Your task to perform on an android device: clear history in the chrome app Image 0: 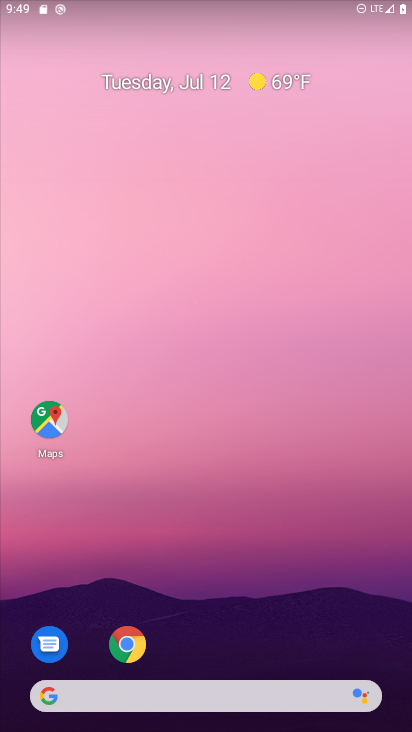
Step 0: press home button
Your task to perform on an android device: clear history in the chrome app Image 1: 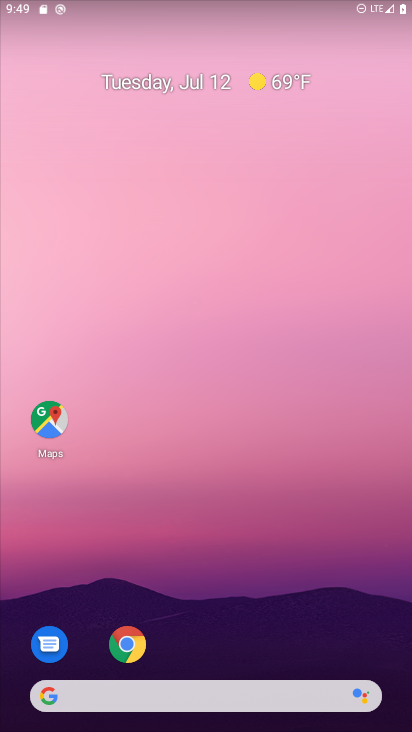
Step 1: click (127, 640)
Your task to perform on an android device: clear history in the chrome app Image 2: 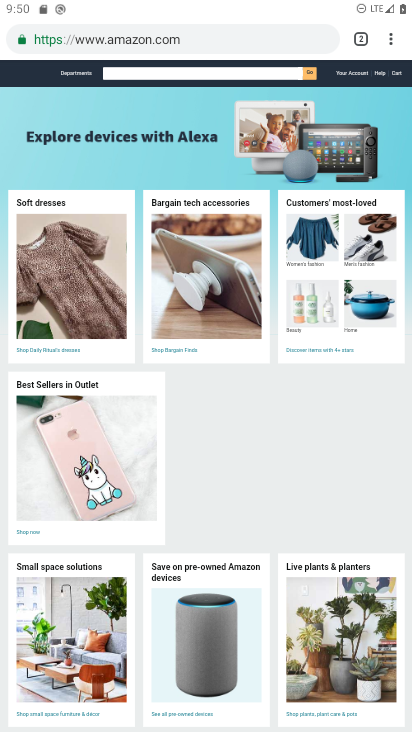
Step 2: click (390, 32)
Your task to perform on an android device: clear history in the chrome app Image 3: 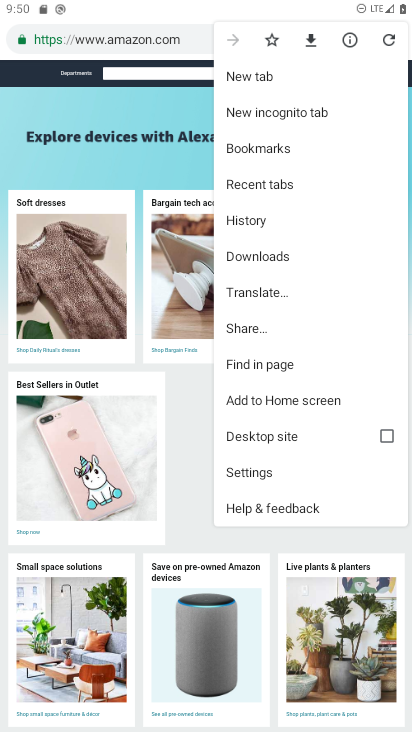
Step 3: click (275, 217)
Your task to perform on an android device: clear history in the chrome app Image 4: 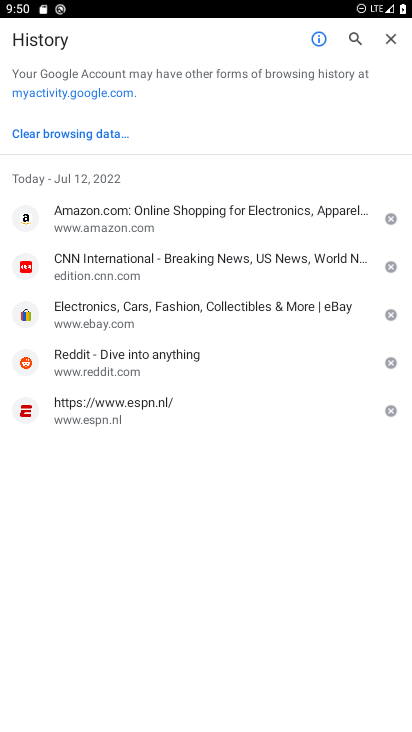
Step 4: click (81, 133)
Your task to perform on an android device: clear history in the chrome app Image 5: 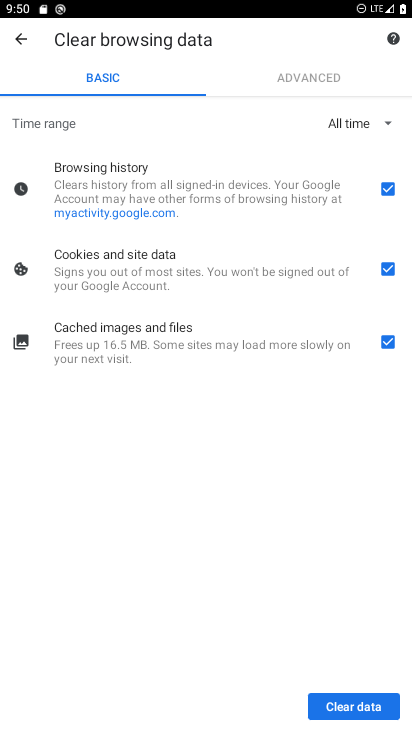
Step 5: click (353, 703)
Your task to perform on an android device: clear history in the chrome app Image 6: 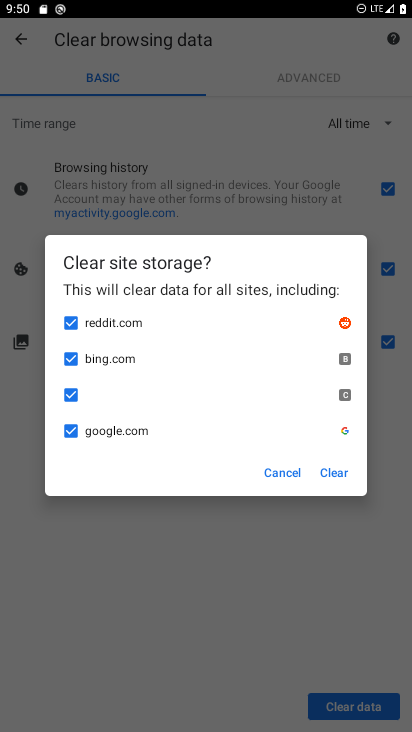
Step 6: click (332, 468)
Your task to perform on an android device: clear history in the chrome app Image 7: 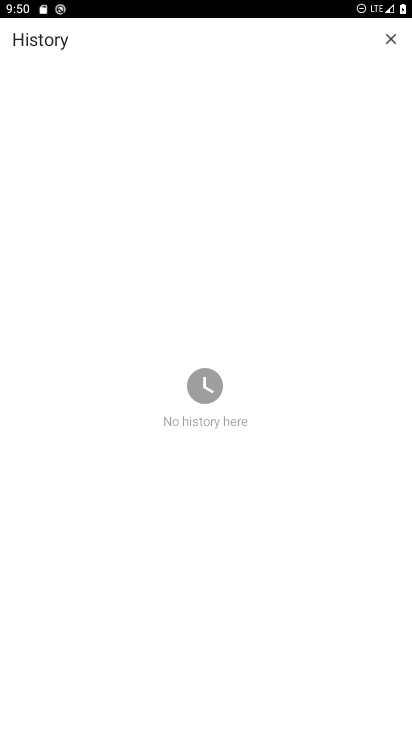
Step 7: task complete